Your task to perform on an android device: change the clock style Image 0: 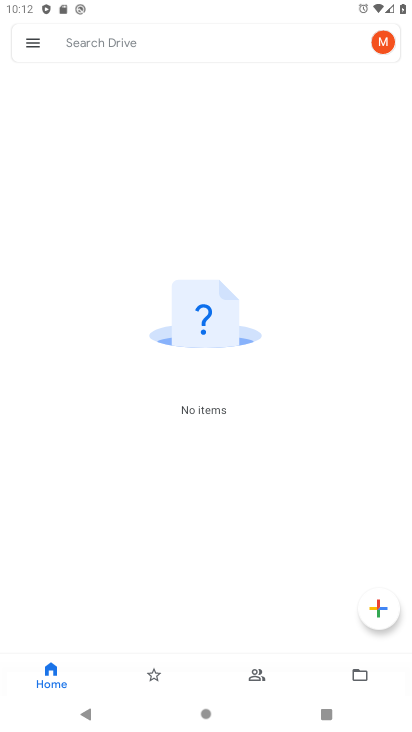
Step 0: press home button
Your task to perform on an android device: change the clock style Image 1: 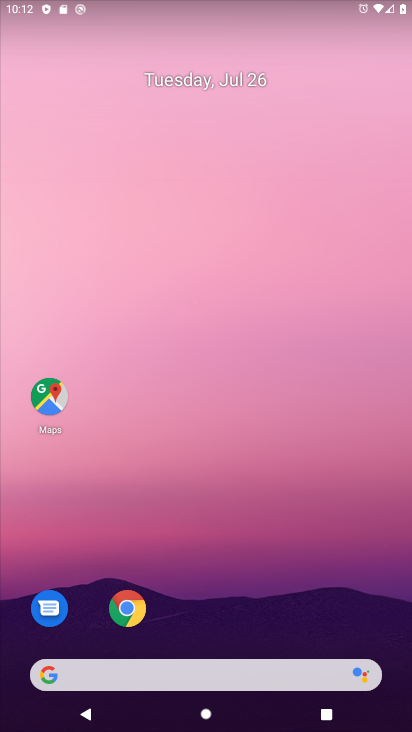
Step 1: drag from (239, 711) to (239, 184)
Your task to perform on an android device: change the clock style Image 2: 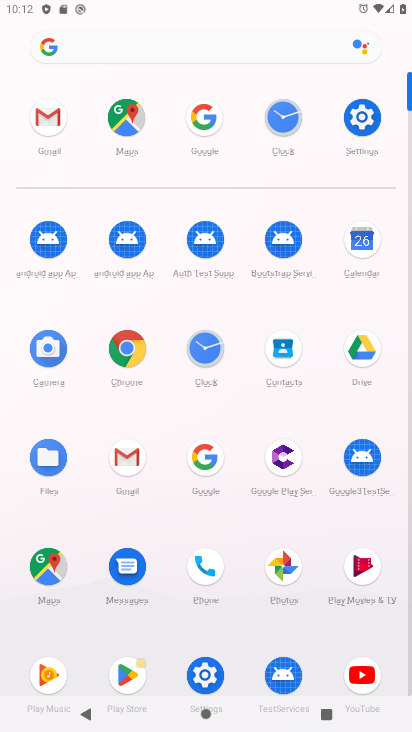
Step 2: click (209, 352)
Your task to perform on an android device: change the clock style Image 3: 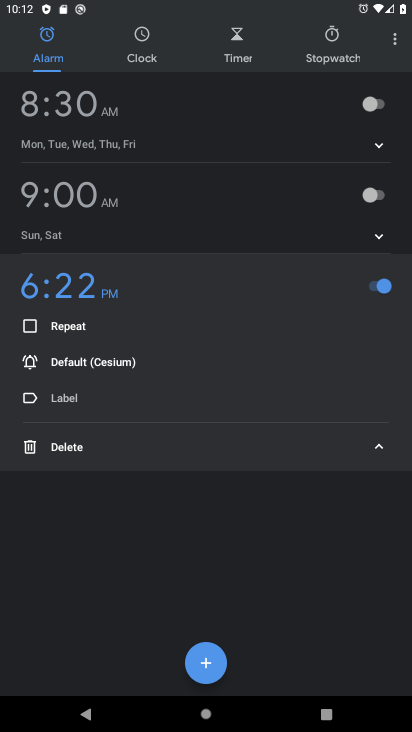
Step 3: click (395, 46)
Your task to perform on an android device: change the clock style Image 4: 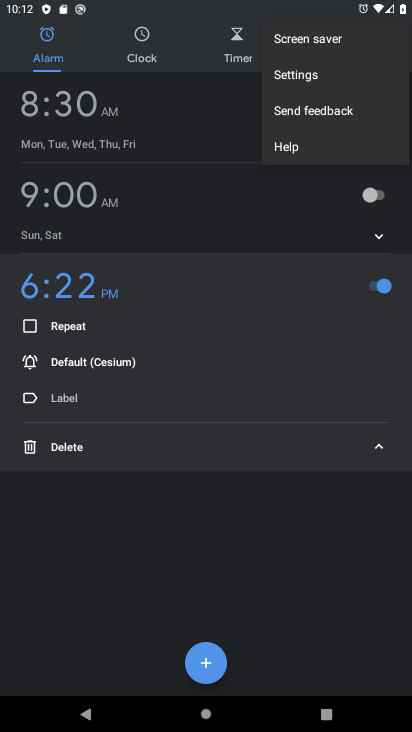
Step 4: click (293, 75)
Your task to perform on an android device: change the clock style Image 5: 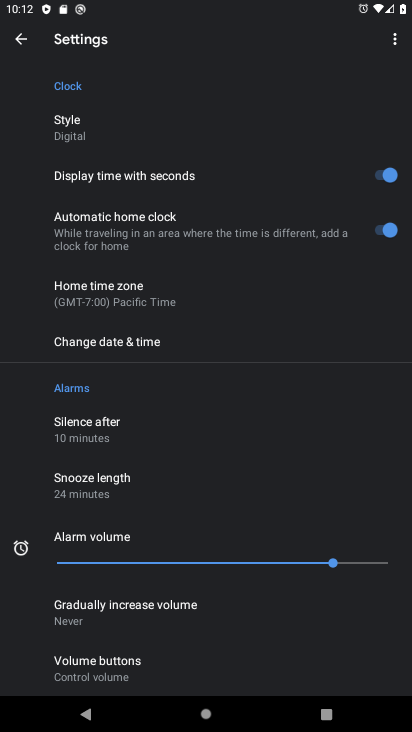
Step 5: click (78, 137)
Your task to perform on an android device: change the clock style Image 6: 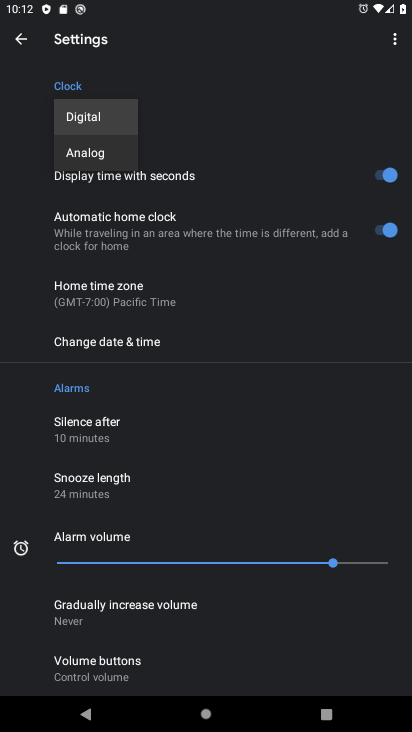
Step 6: click (84, 154)
Your task to perform on an android device: change the clock style Image 7: 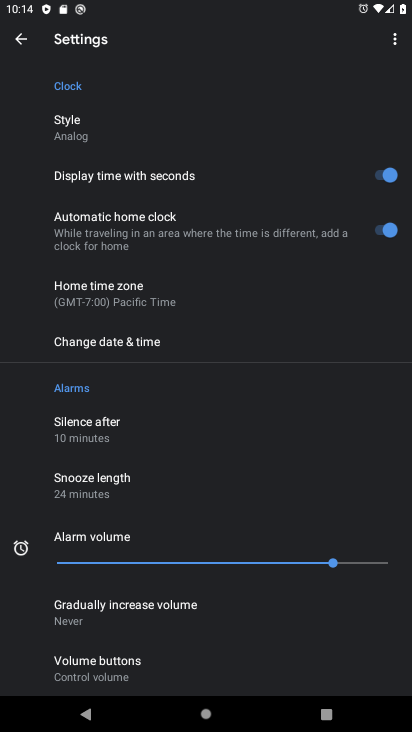
Step 7: task complete